Your task to perform on an android device: stop showing notifications on the lock screen Image 0: 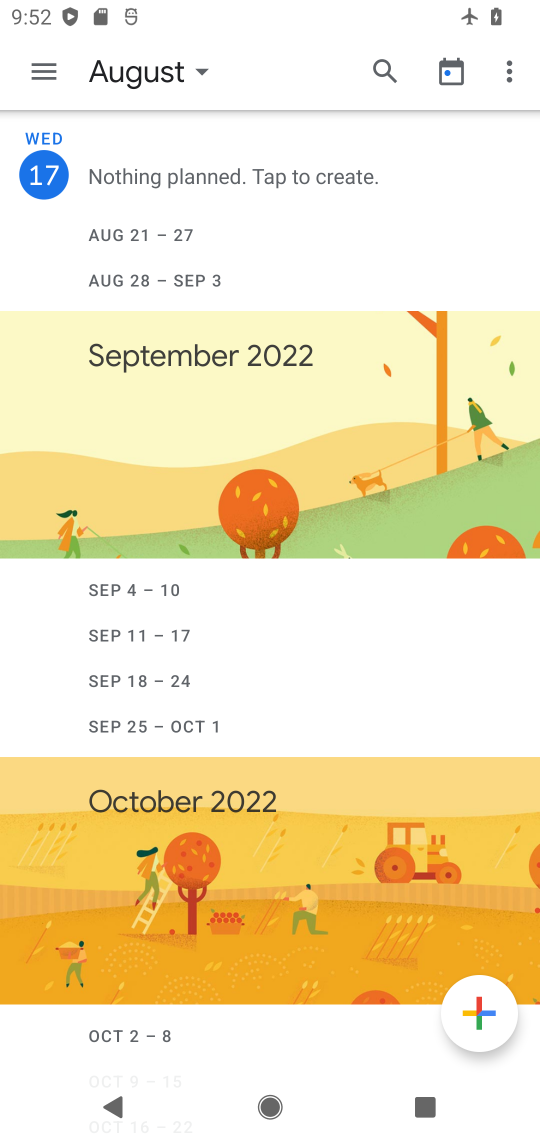
Step 0: press home button
Your task to perform on an android device: stop showing notifications on the lock screen Image 1: 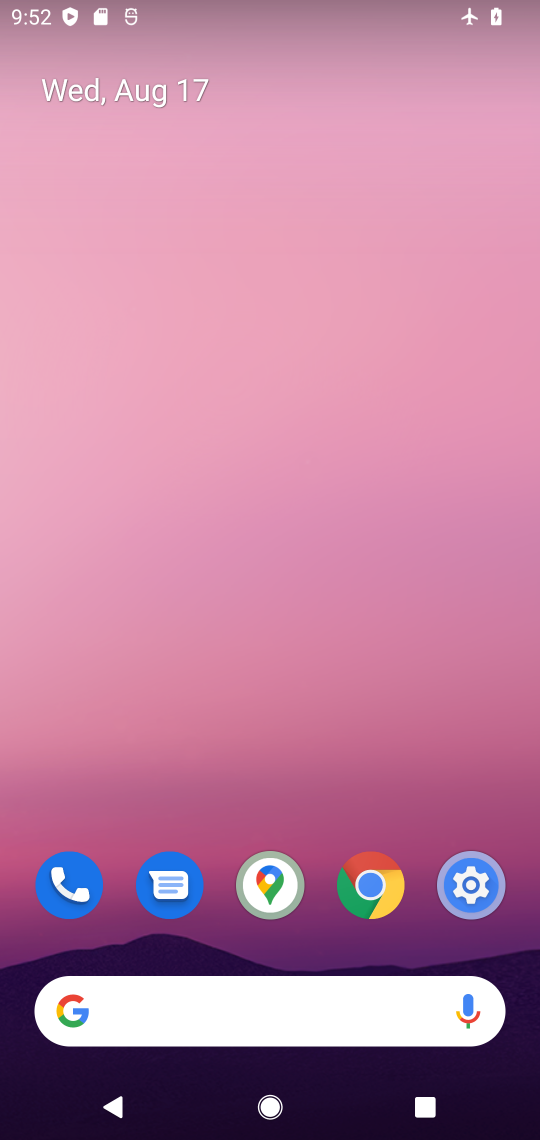
Step 1: click (473, 882)
Your task to perform on an android device: stop showing notifications on the lock screen Image 2: 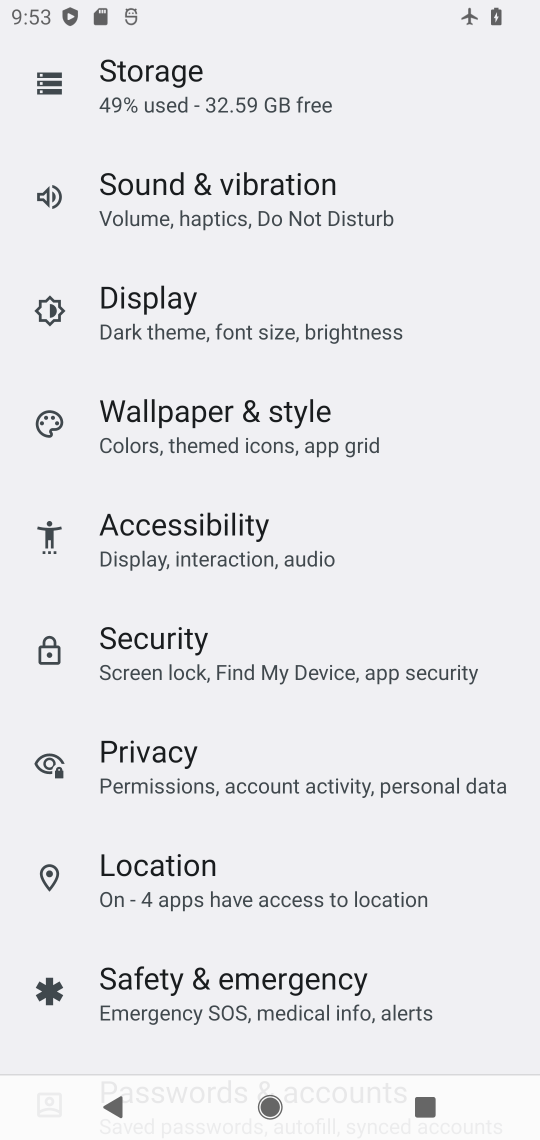
Step 2: drag from (469, 389) to (454, 754)
Your task to perform on an android device: stop showing notifications on the lock screen Image 3: 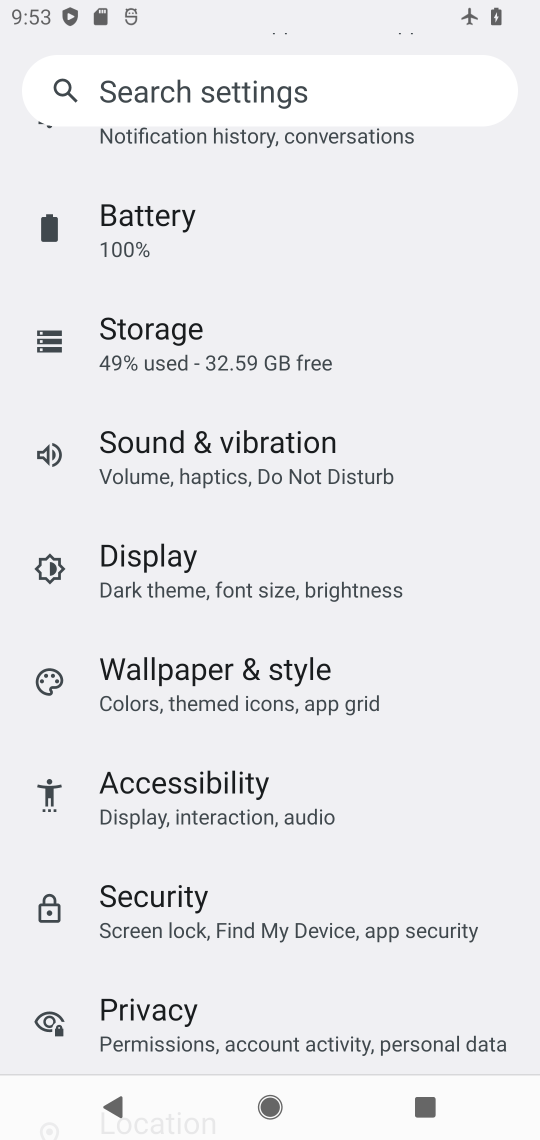
Step 3: drag from (464, 329) to (443, 792)
Your task to perform on an android device: stop showing notifications on the lock screen Image 4: 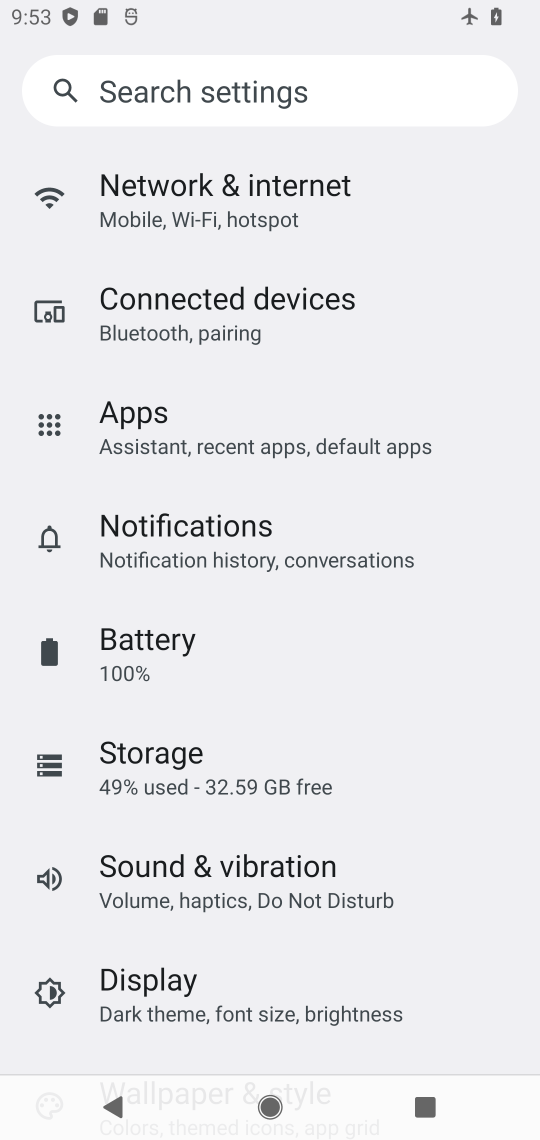
Step 4: click (232, 531)
Your task to perform on an android device: stop showing notifications on the lock screen Image 5: 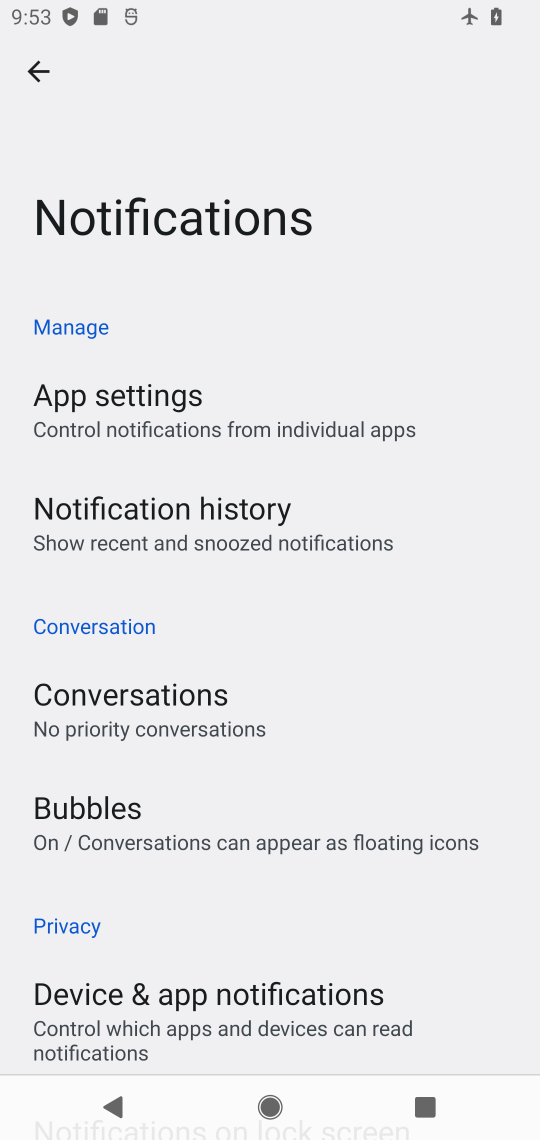
Step 5: drag from (361, 936) to (377, 235)
Your task to perform on an android device: stop showing notifications on the lock screen Image 6: 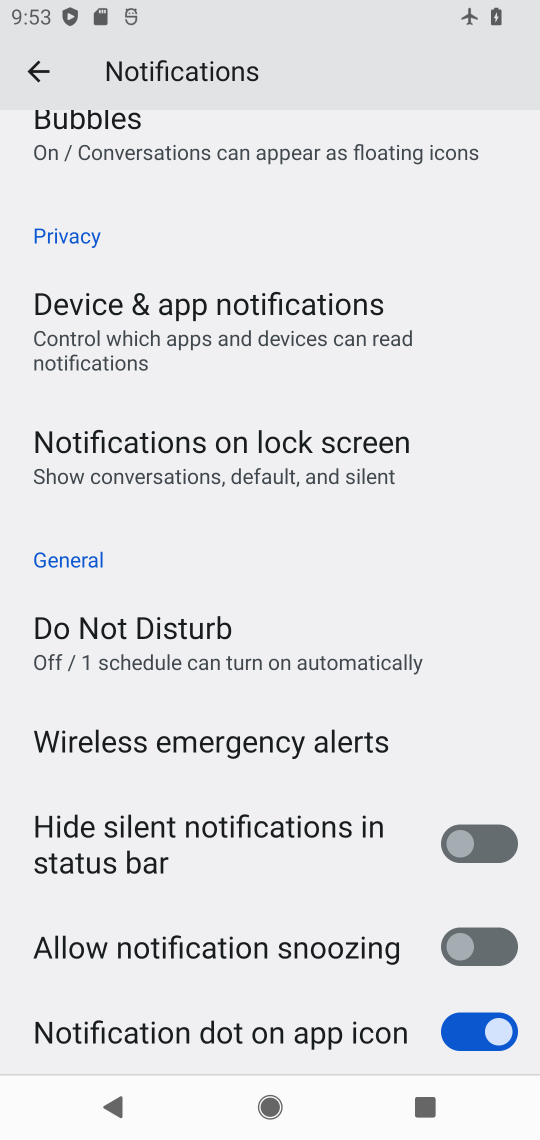
Step 6: click (205, 457)
Your task to perform on an android device: stop showing notifications on the lock screen Image 7: 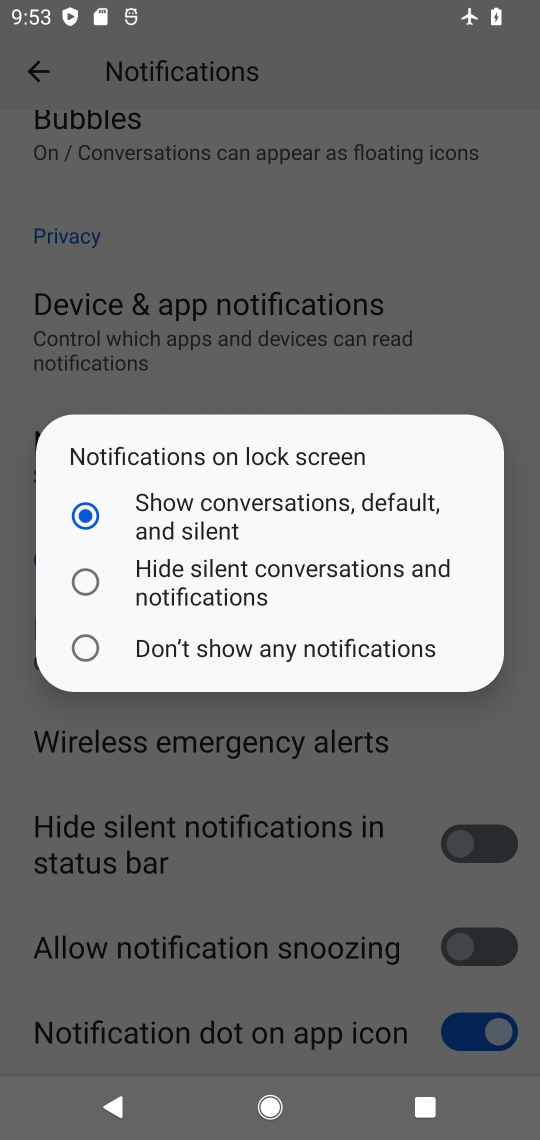
Step 7: click (83, 648)
Your task to perform on an android device: stop showing notifications on the lock screen Image 8: 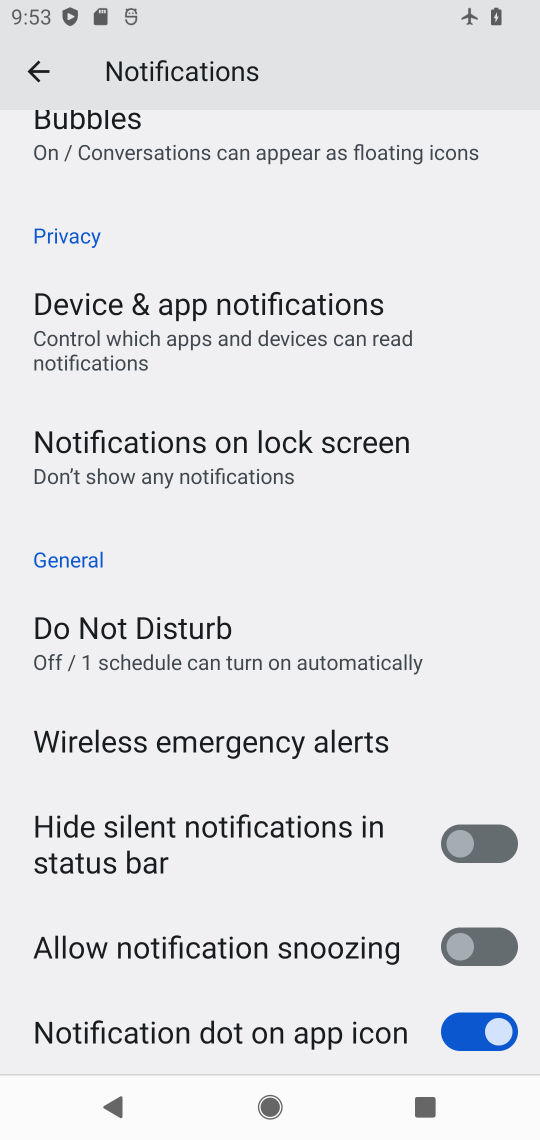
Step 8: task complete